Your task to perform on an android device: Open calendar and show me the second week of next month Image 0: 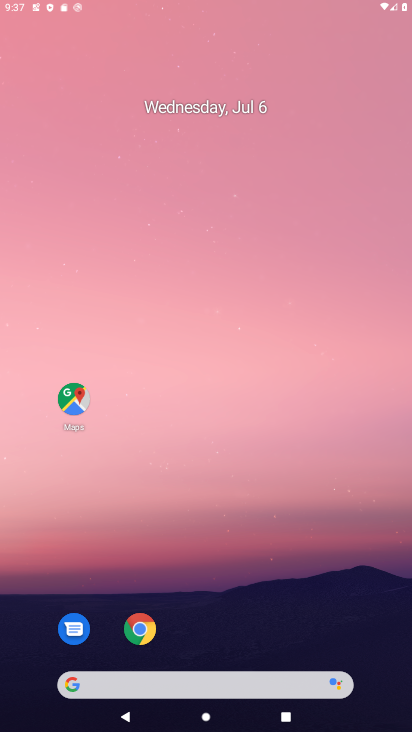
Step 0: drag from (246, 638) to (232, 98)
Your task to perform on an android device: Open calendar and show me the second week of next month Image 1: 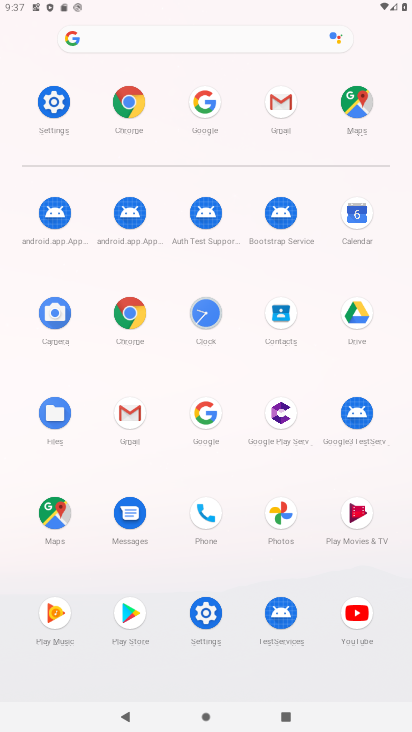
Step 1: click (358, 213)
Your task to perform on an android device: Open calendar and show me the second week of next month Image 2: 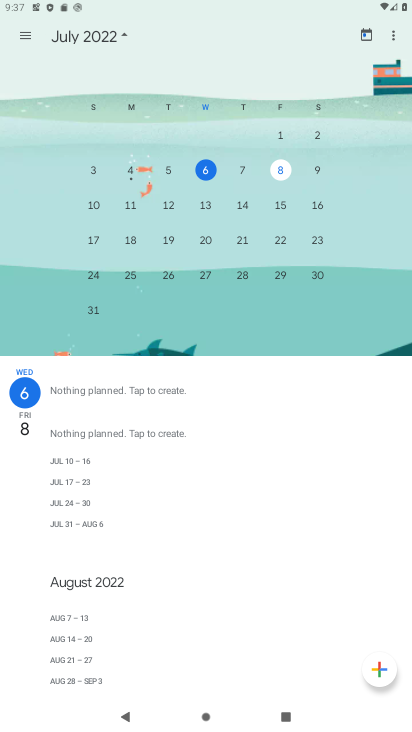
Step 2: drag from (267, 293) to (2, 286)
Your task to perform on an android device: Open calendar and show me the second week of next month Image 3: 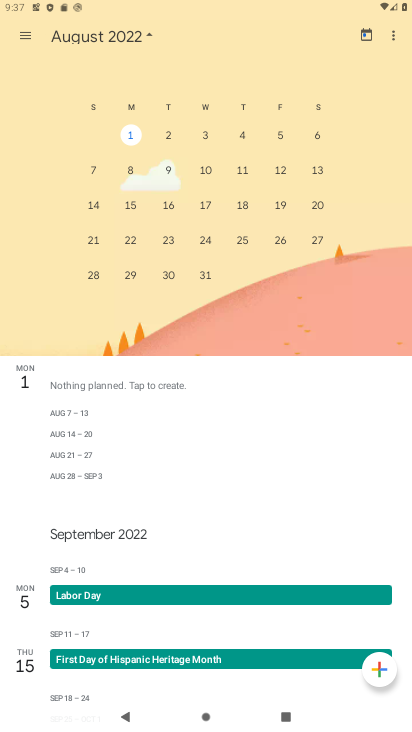
Step 3: click (208, 168)
Your task to perform on an android device: Open calendar and show me the second week of next month Image 4: 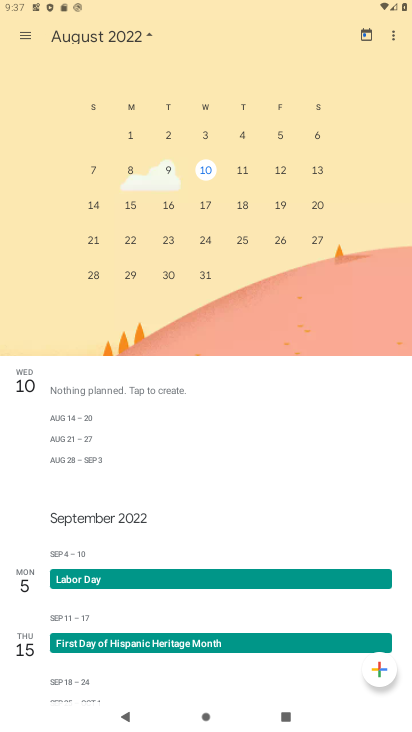
Step 4: task complete